Your task to perform on an android device: change the clock display to digital Image 0: 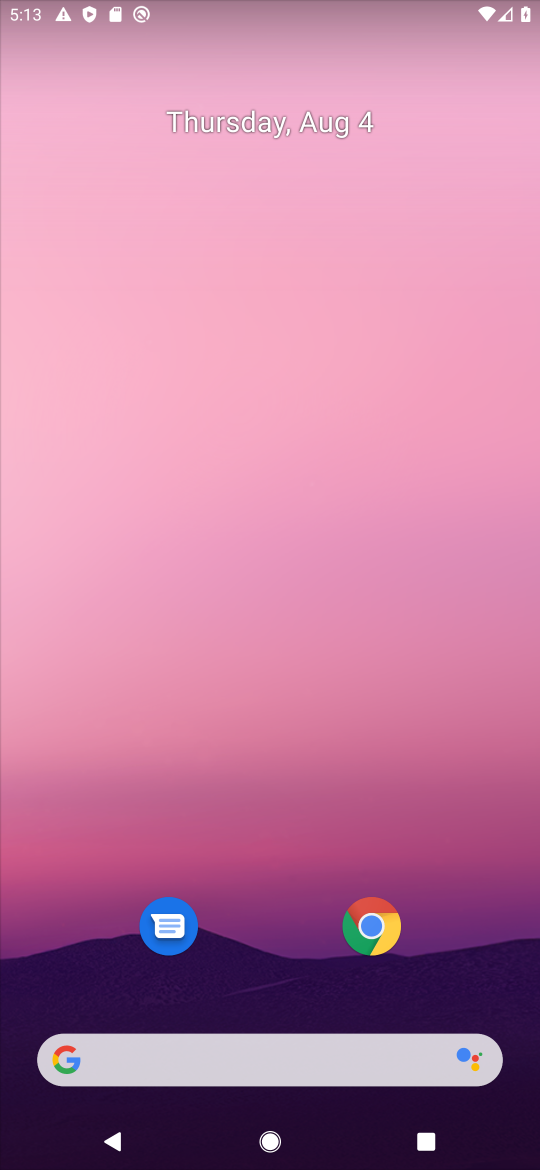
Step 0: drag from (450, 982) to (386, 406)
Your task to perform on an android device: change the clock display to digital Image 1: 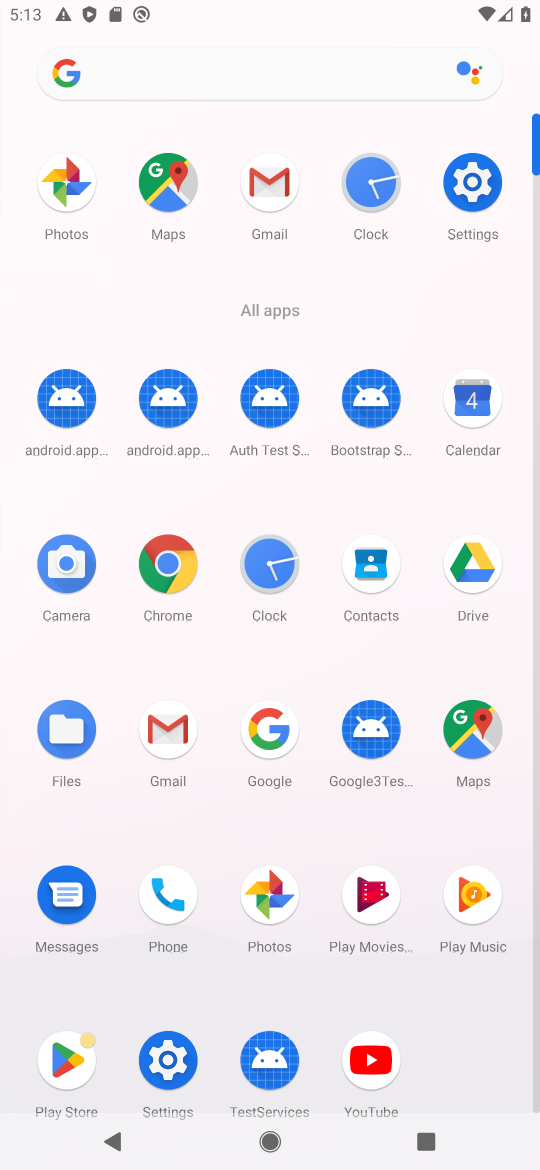
Step 1: click (259, 566)
Your task to perform on an android device: change the clock display to digital Image 2: 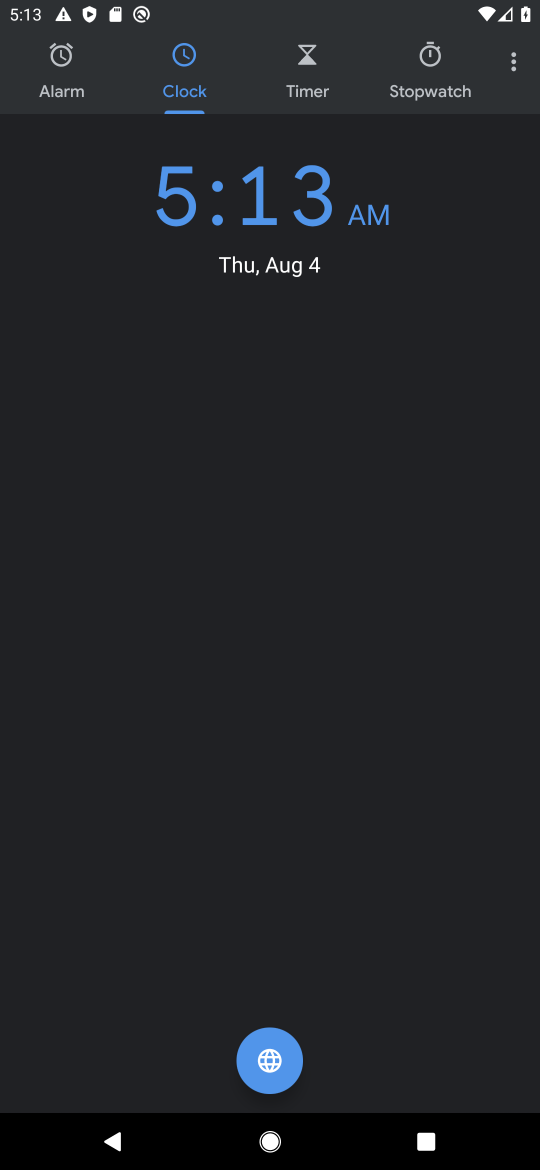
Step 2: click (507, 65)
Your task to perform on an android device: change the clock display to digital Image 3: 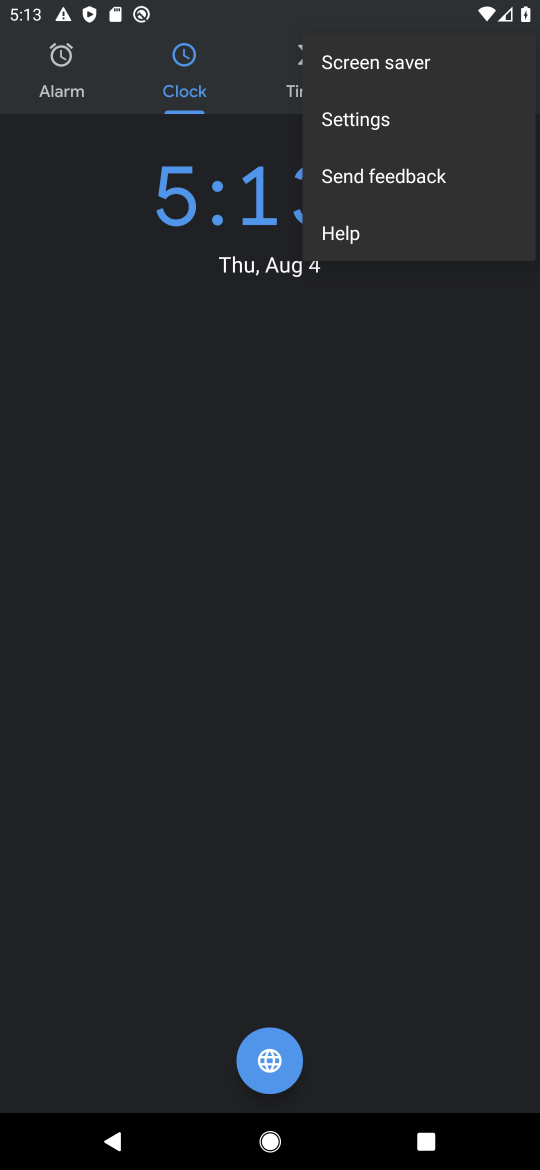
Step 3: click (380, 125)
Your task to perform on an android device: change the clock display to digital Image 4: 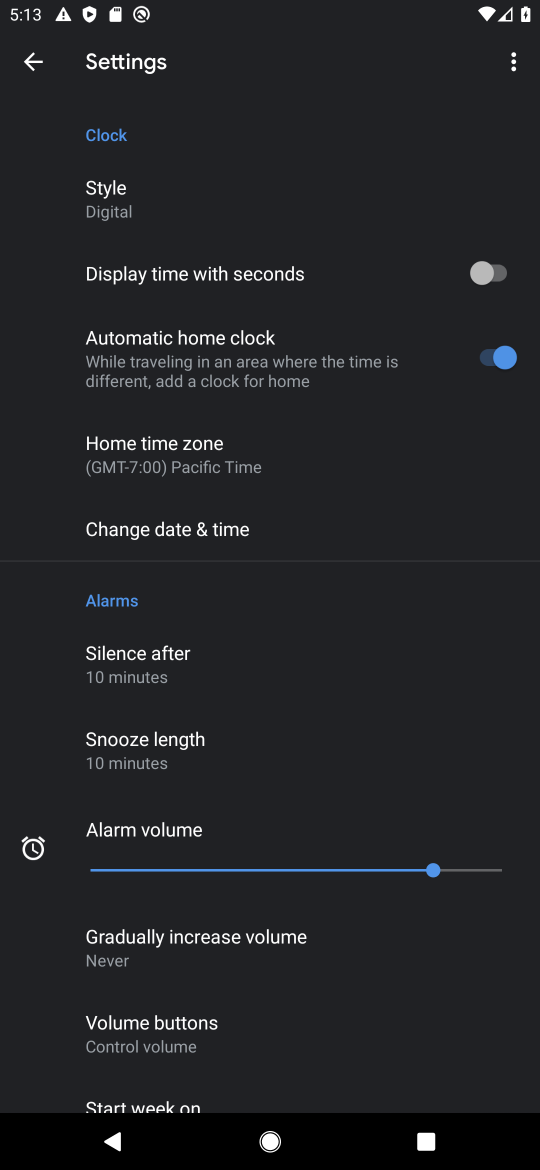
Step 4: click (188, 205)
Your task to perform on an android device: change the clock display to digital Image 5: 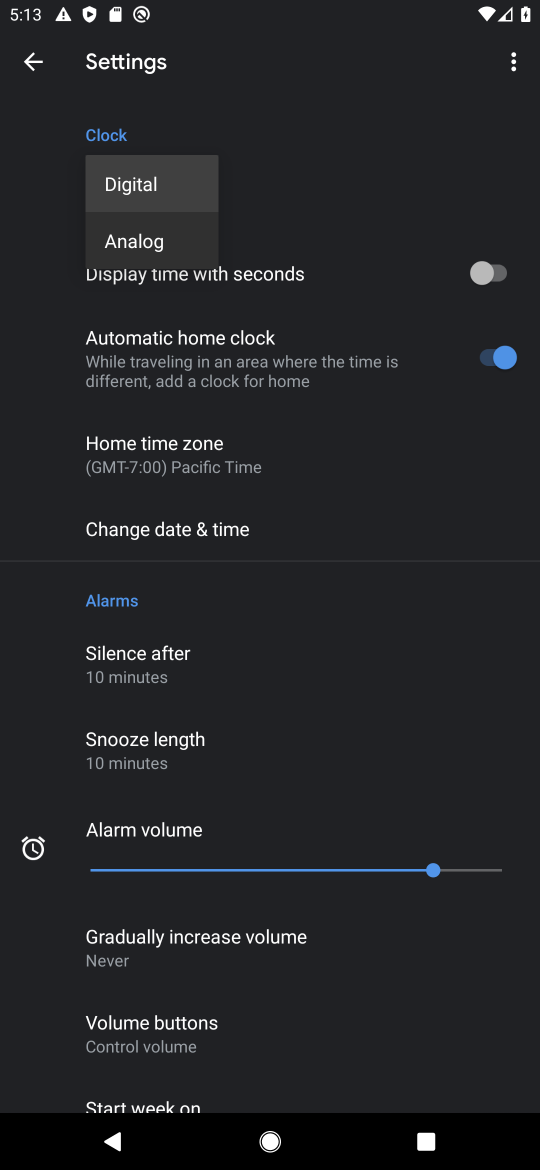
Step 5: task complete